Your task to perform on an android device: Open the map Image 0: 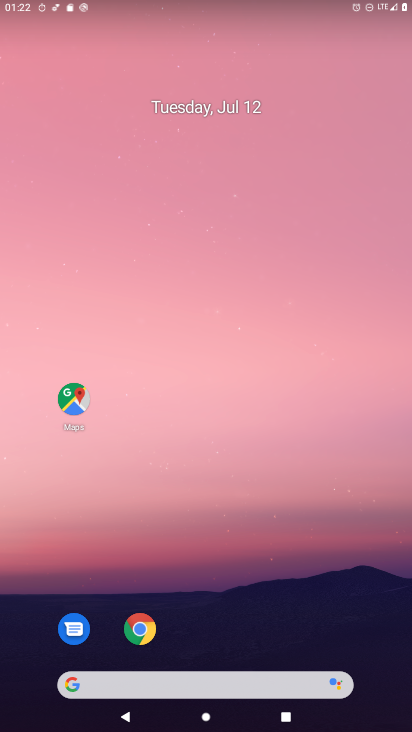
Step 0: click (69, 398)
Your task to perform on an android device: Open the map Image 1: 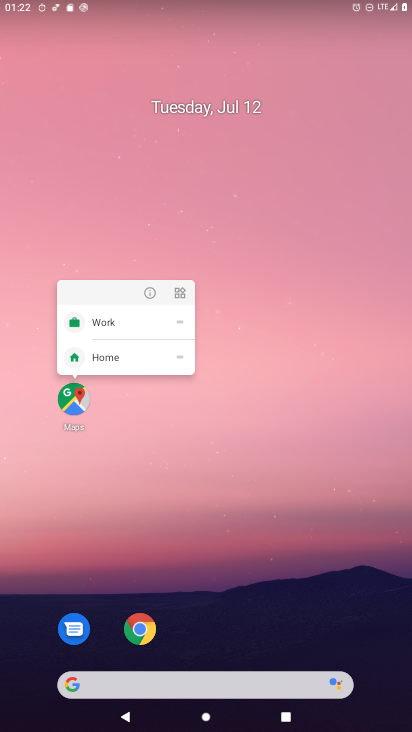
Step 1: click (73, 407)
Your task to perform on an android device: Open the map Image 2: 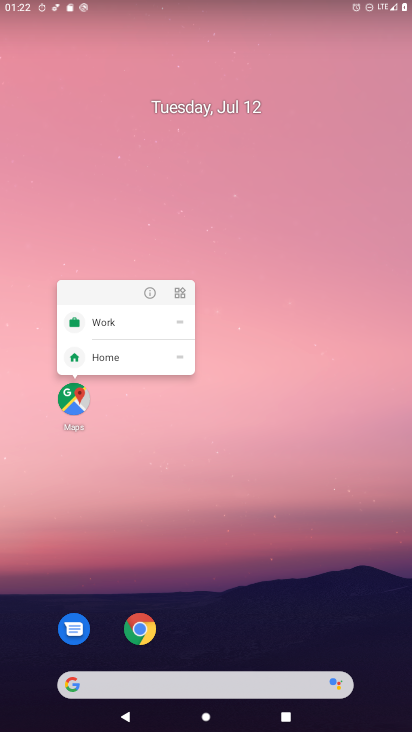
Step 2: click (79, 406)
Your task to perform on an android device: Open the map Image 3: 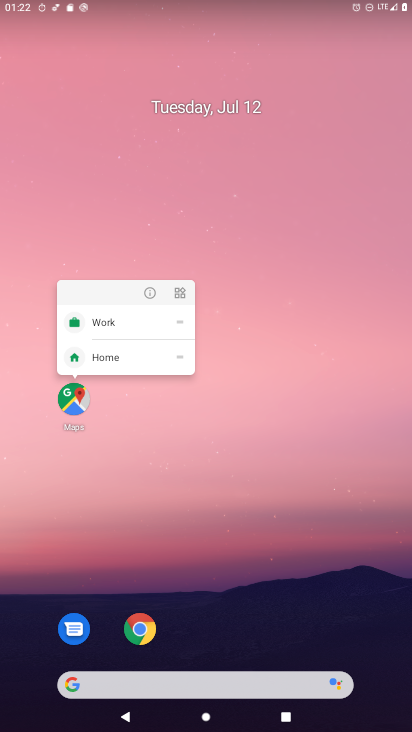
Step 3: click (72, 400)
Your task to perform on an android device: Open the map Image 4: 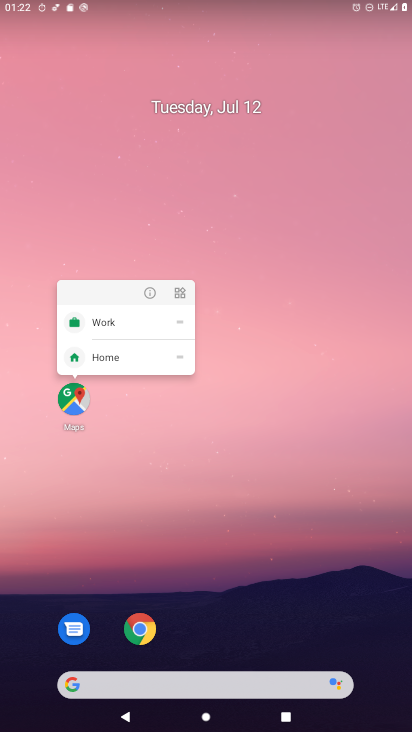
Step 4: click (72, 400)
Your task to perform on an android device: Open the map Image 5: 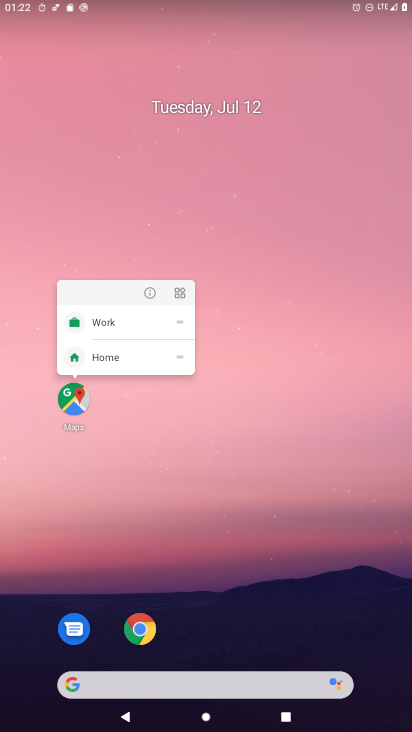
Step 5: click (69, 406)
Your task to perform on an android device: Open the map Image 6: 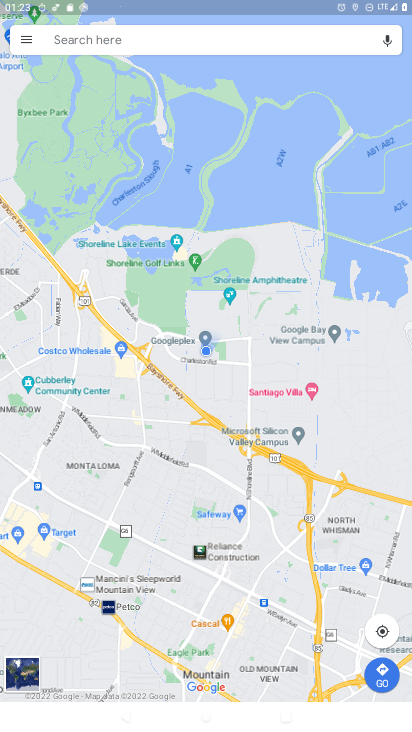
Step 6: task complete